Your task to perform on an android device: change notification settings in the gmail app Image 0: 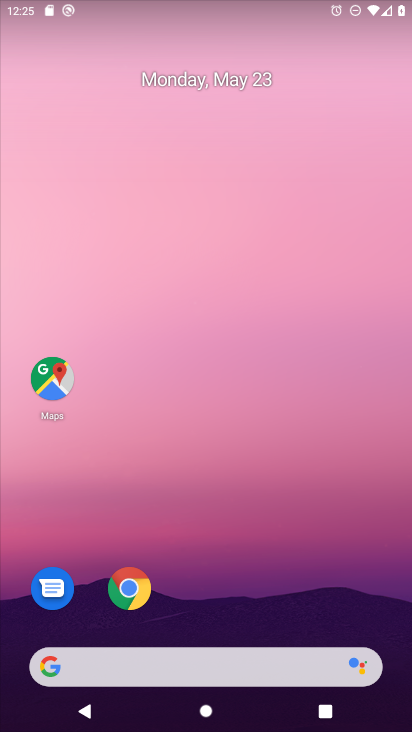
Step 0: drag from (271, 664) to (207, 210)
Your task to perform on an android device: change notification settings in the gmail app Image 1: 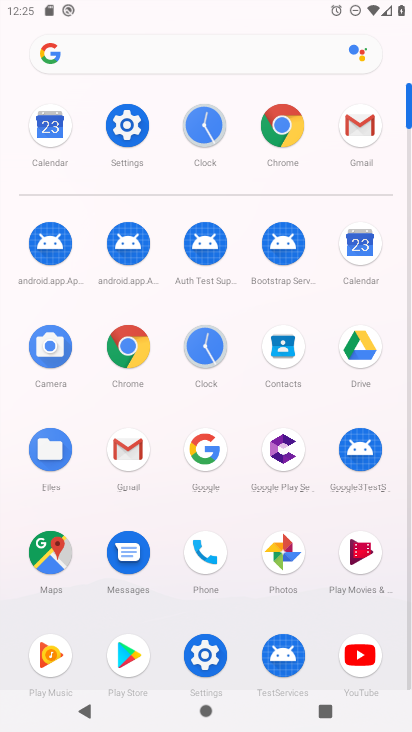
Step 1: click (143, 444)
Your task to perform on an android device: change notification settings in the gmail app Image 2: 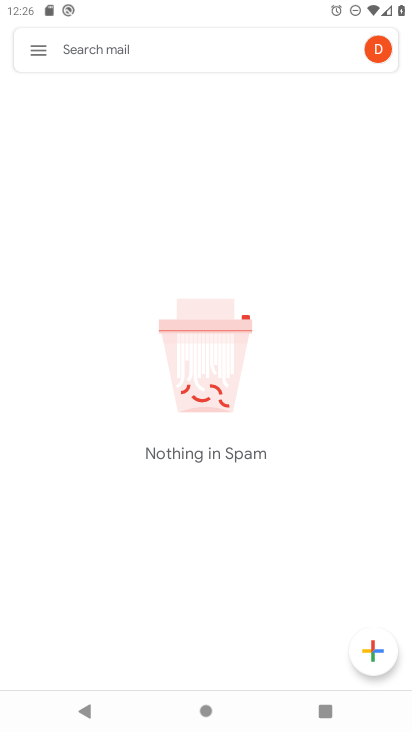
Step 2: click (25, 50)
Your task to perform on an android device: change notification settings in the gmail app Image 3: 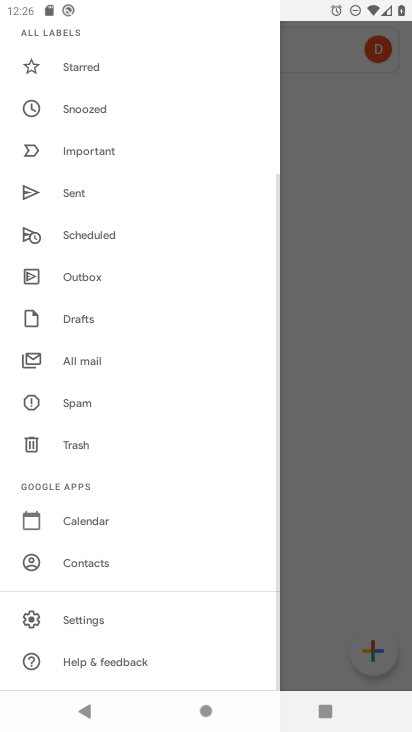
Step 3: click (105, 615)
Your task to perform on an android device: change notification settings in the gmail app Image 4: 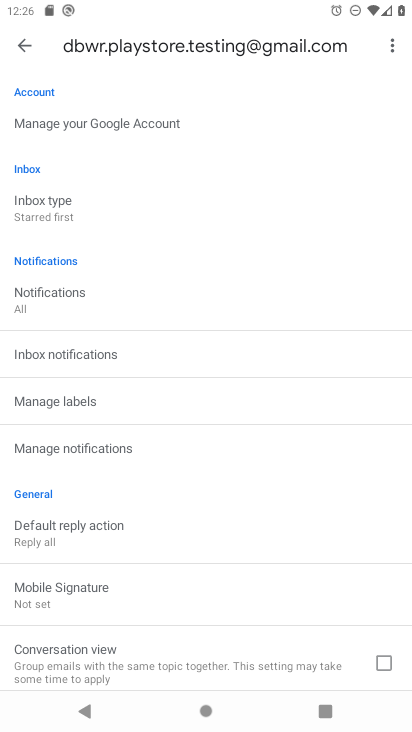
Step 4: click (69, 290)
Your task to perform on an android device: change notification settings in the gmail app Image 5: 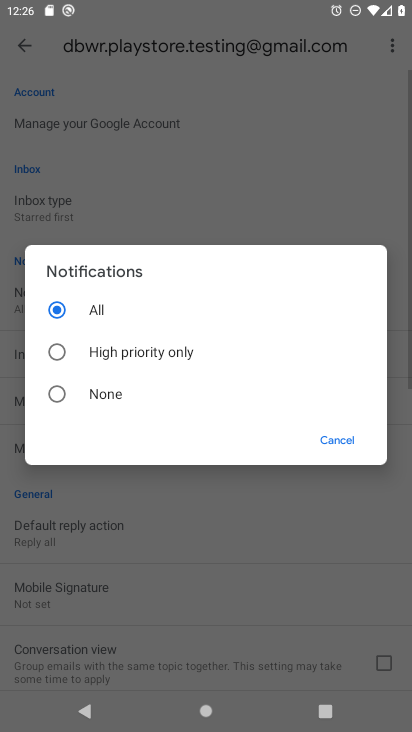
Step 5: click (115, 348)
Your task to perform on an android device: change notification settings in the gmail app Image 6: 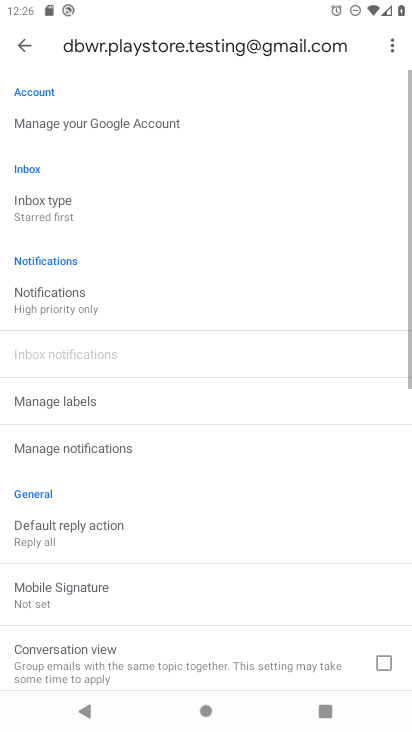
Step 6: task complete